Your task to perform on an android device: turn on notifications settings in the gmail app Image 0: 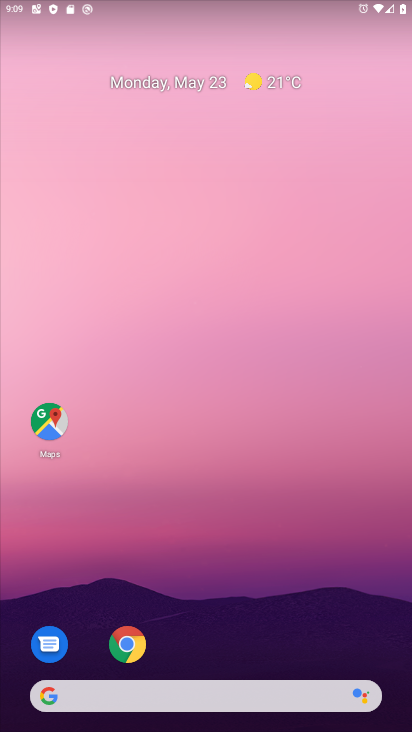
Step 0: drag from (216, 728) to (150, 111)
Your task to perform on an android device: turn on notifications settings in the gmail app Image 1: 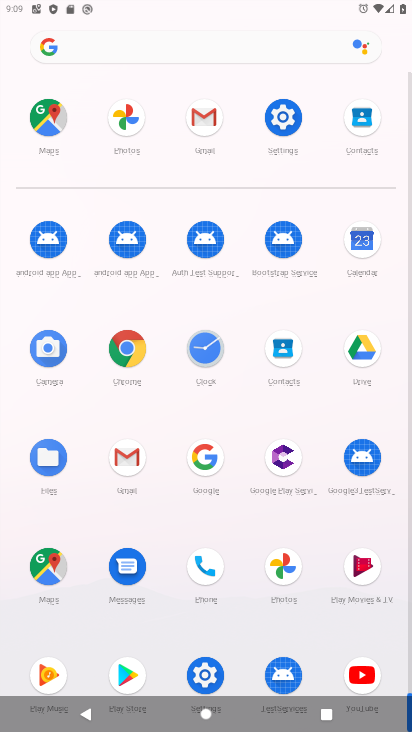
Step 1: click (208, 127)
Your task to perform on an android device: turn on notifications settings in the gmail app Image 2: 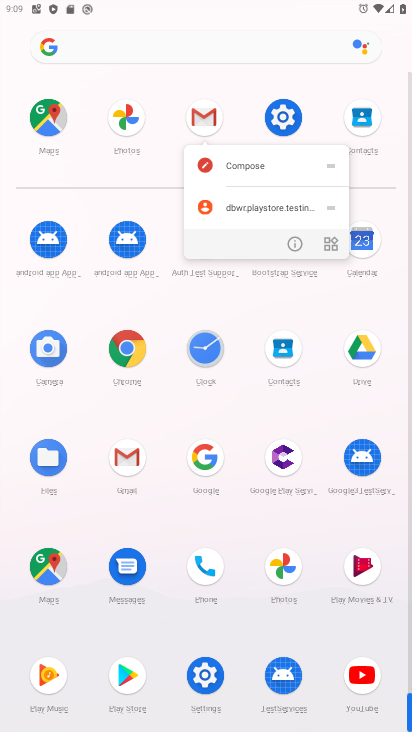
Step 2: click (291, 246)
Your task to perform on an android device: turn on notifications settings in the gmail app Image 3: 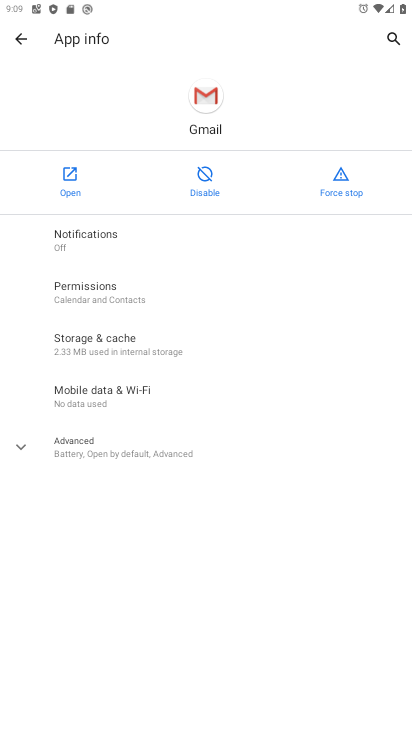
Step 3: click (106, 236)
Your task to perform on an android device: turn on notifications settings in the gmail app Image 4: 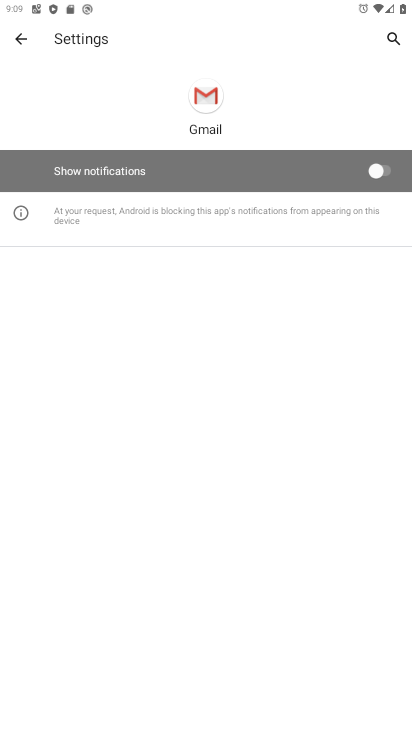
Step 4: click (379, 165)
Your task to perform on an android device: turn on notifications settings in the gmail app Image 5: 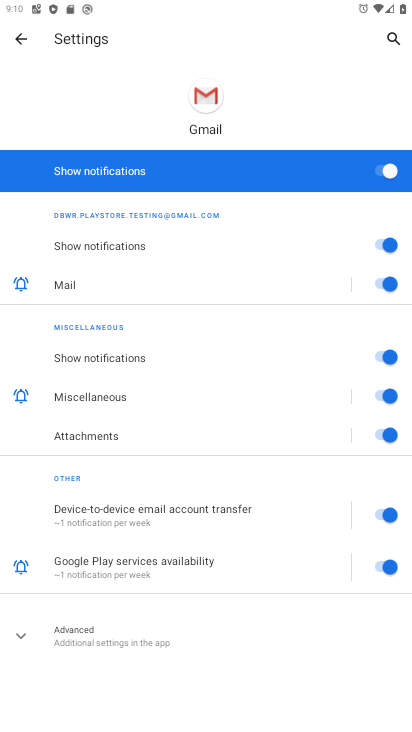
Step 5: task complete